Your task to perform on an android device: What is the recent news? Image 0: 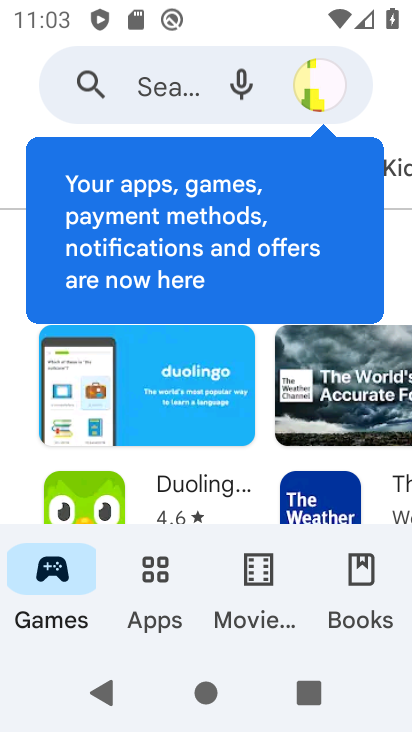
Step 0: press back button
Your task to perform on an android device: What is the recent news? Image 1: 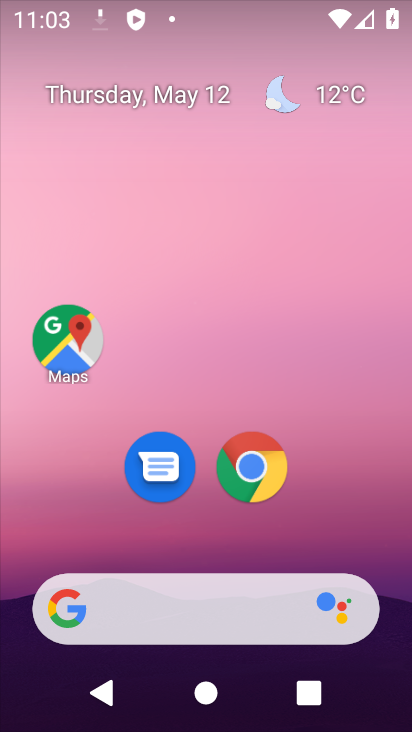
Step 1: drag from (346, 518) to (202, 20)
Your task to perform on an android device: What is the recent news? Image 2: 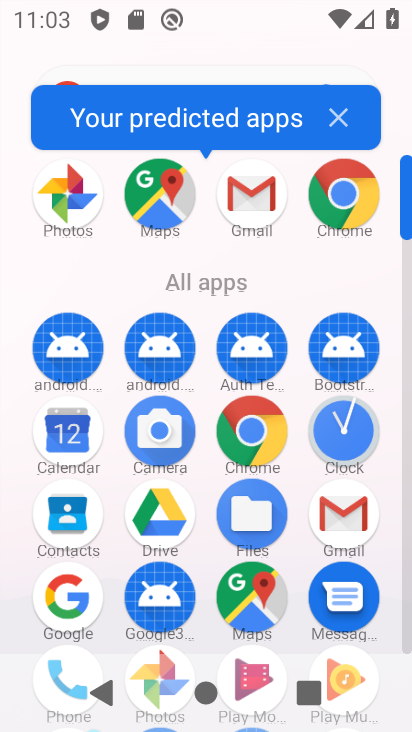
Step 2: drag from (7, 533) to (5, 305)
Your task to perform on an android device: What is the recent news? Image 3: 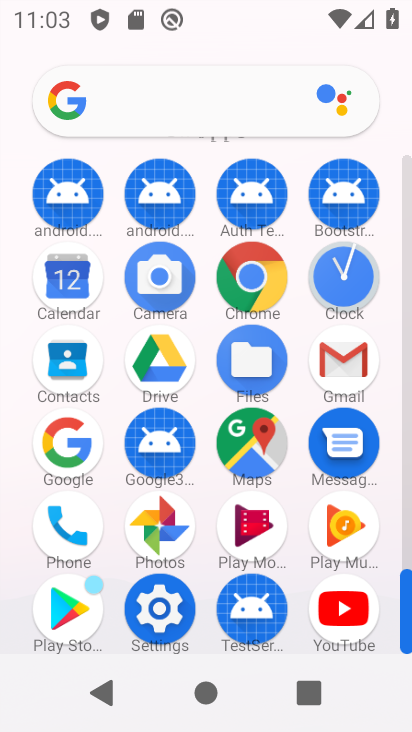
Step 3: drag from (1, 567) to (2, 330)
Your task to perform on an android device: What is the recent news? Image 4: 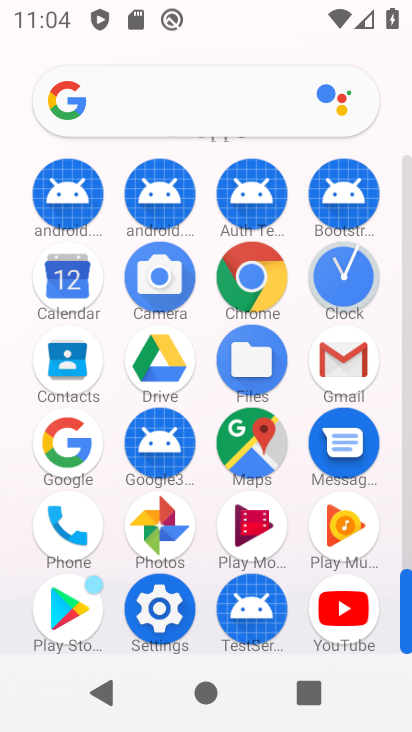
Step 4: click (245, 275)
Your task to perform on an android device: What is the recent news? Image 5: 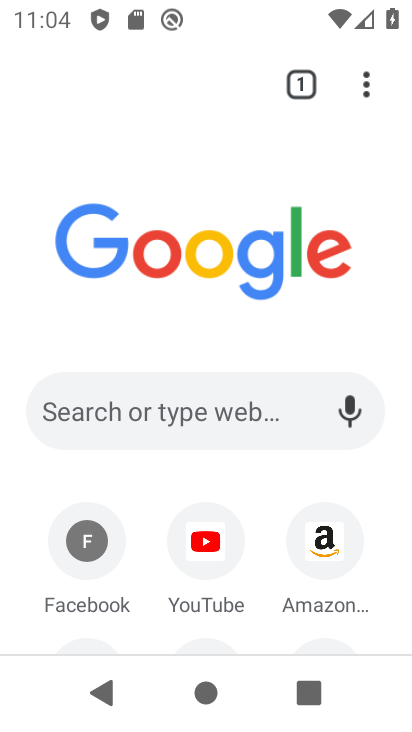
Step 5: click (158, 411)
Your task to perform on an android device: What is the recent news? Image 6: 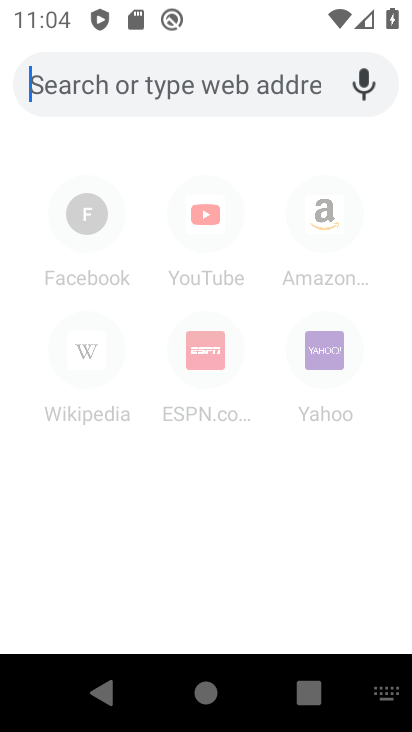
Step 6: type "What is the recent news?"
Your task to perform on an android device: What is the recent news? Image 7: 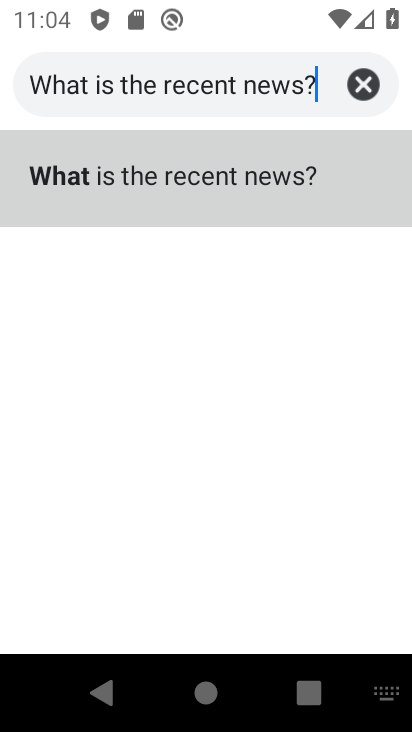
Step 7: type ""
Your task to perform on an android device: What is the recent news? Image 8: 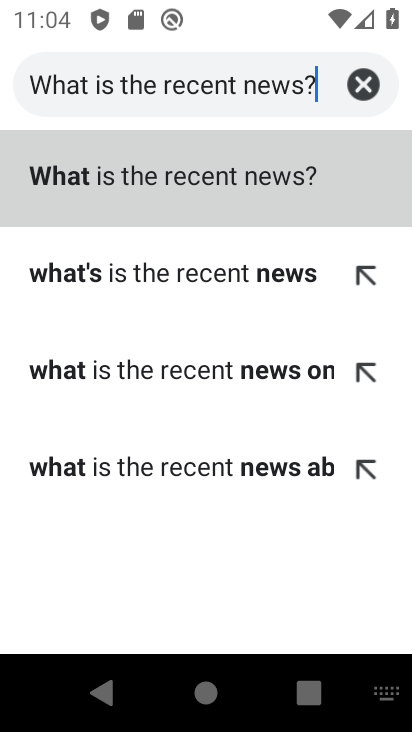
Step 8: click (117, 194)
Your task to perform on an android device: What is the recent news? Image 9: 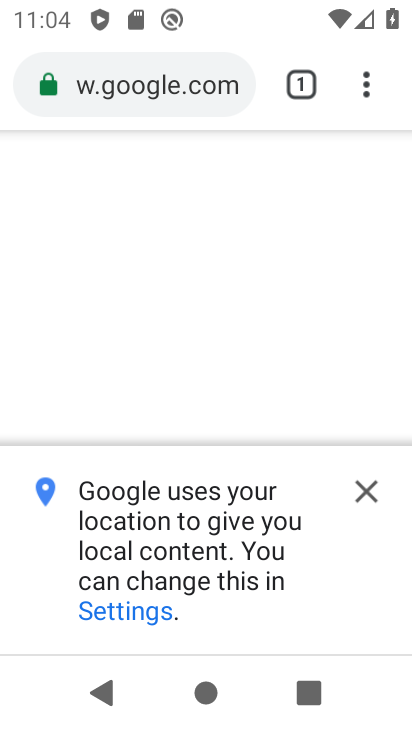
Step 9: click (372, 486)
Your task to perform on an android device: What is the recent news? Image 10: 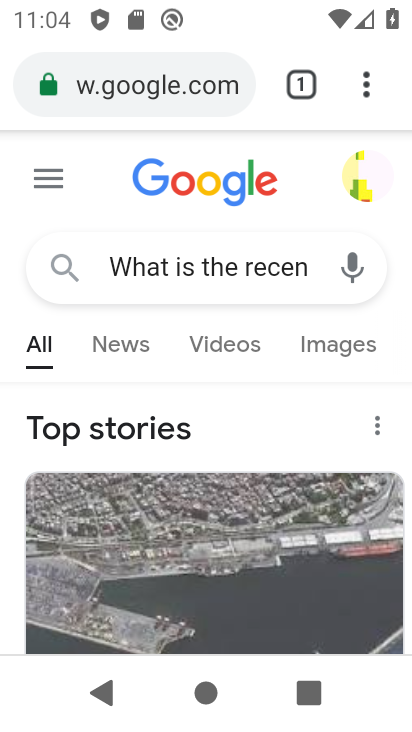
Step 10: task complete